Your task to perform on an android device: What's the weather today? Image 0: 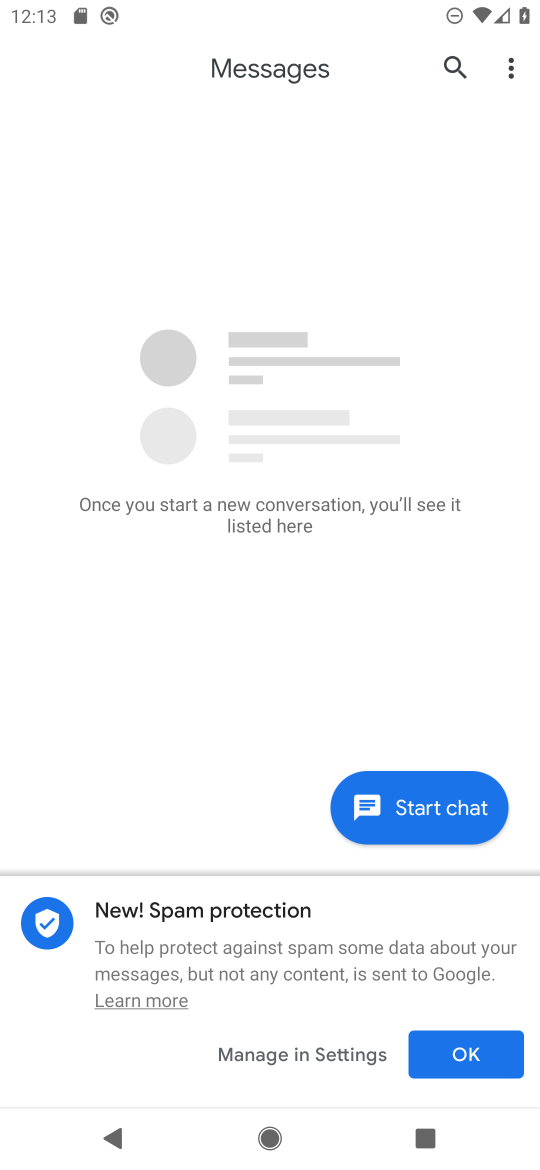
Step 0: click (209, 1055)
Your task to perform on an android device: What's the weather today? Image 1: 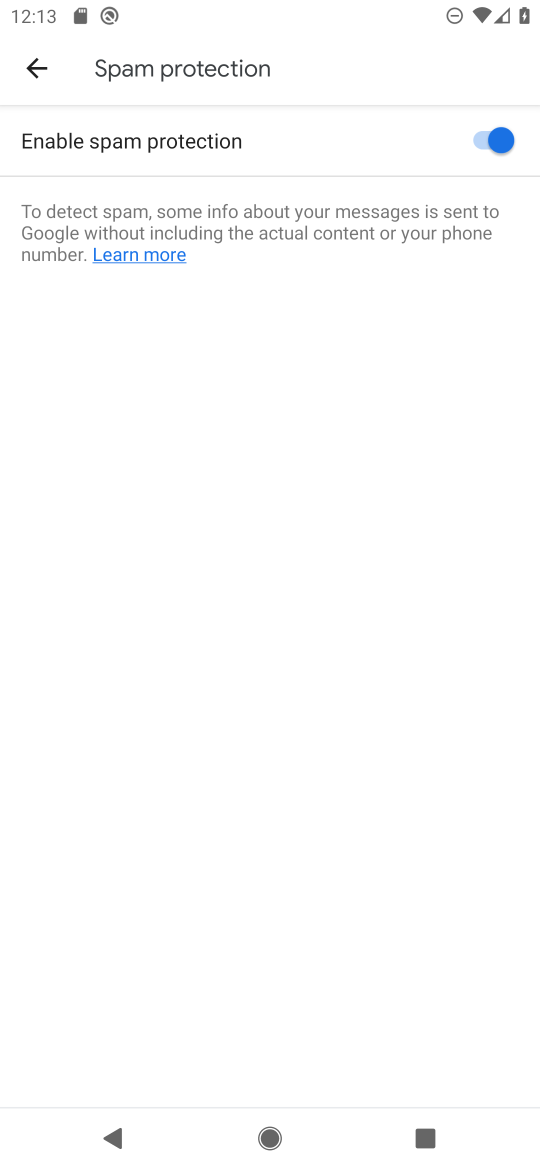
Step 1: press home button
Your task to perform on an android device: What's the weather today? Image 2: 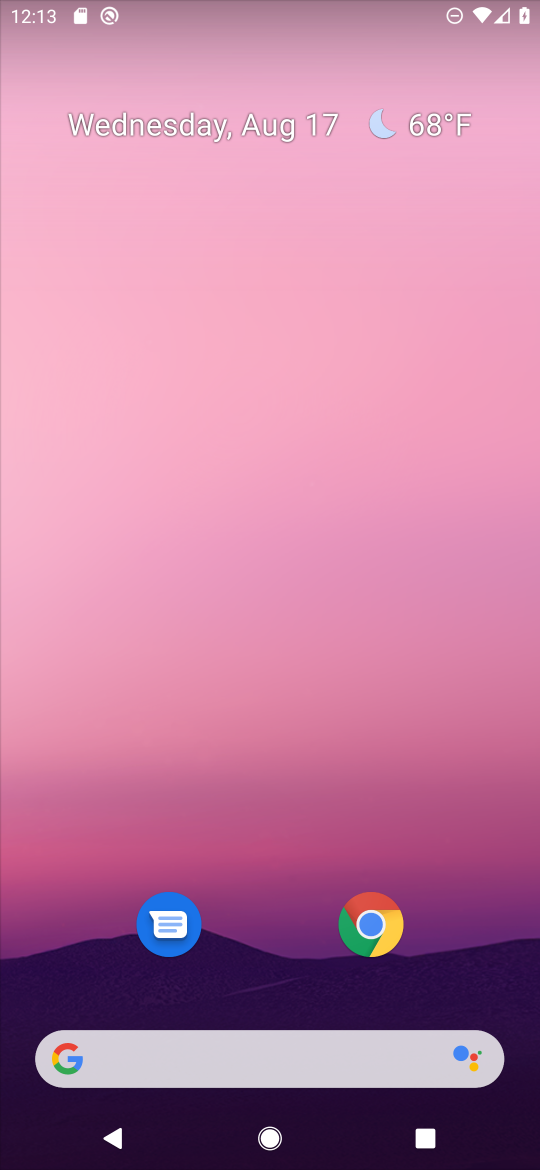
Step 2: click (443, 125)
Your task to perform on an android device: What's the weather today? Image 3: 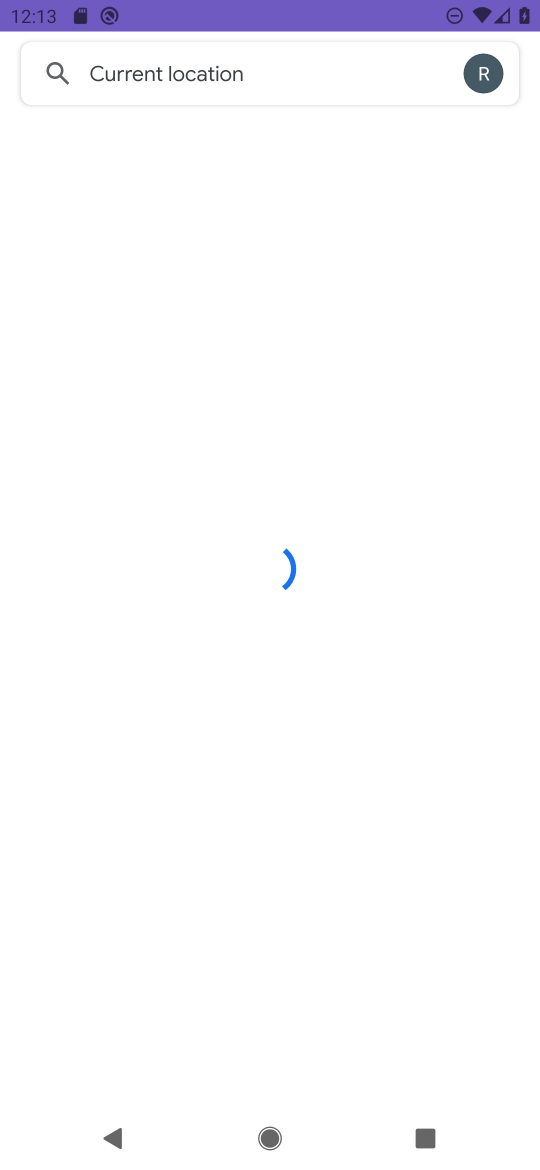
Step 3: click (380, 123)
Your task to perform on an android device: What's the weather today? Image 4: 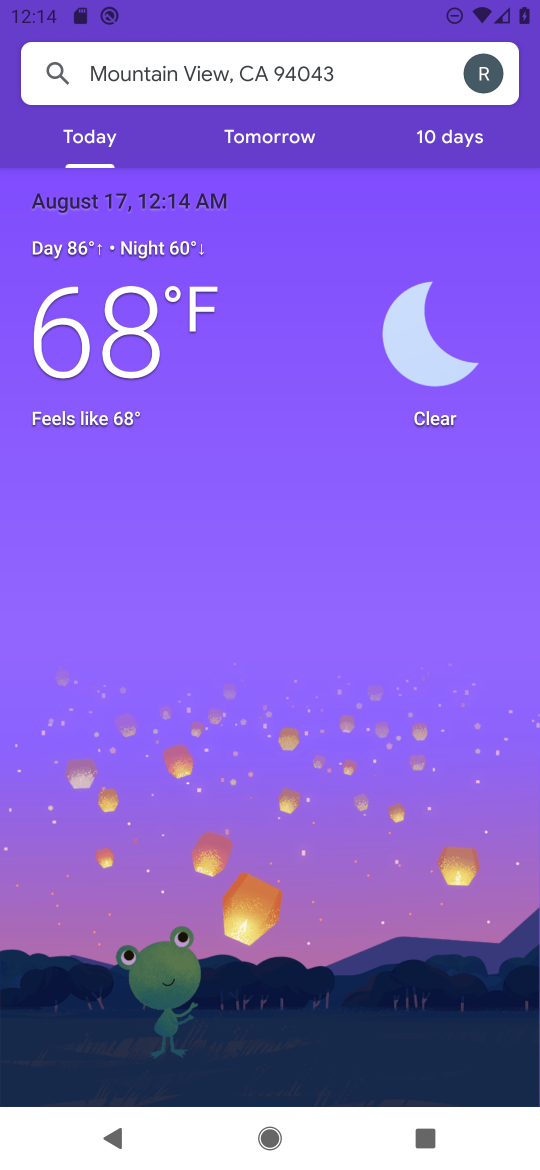
Step 4: task complete